Your task to perform on an android device: toggle location history Image 0: 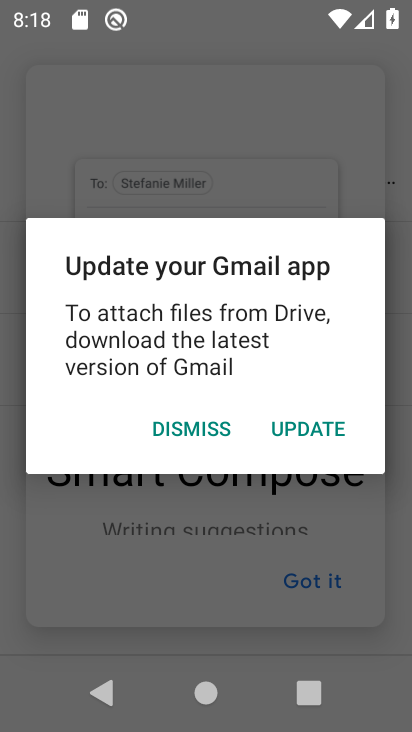
Step 0: press home button
Your task to perform on an android device: toggle location history Image 1: 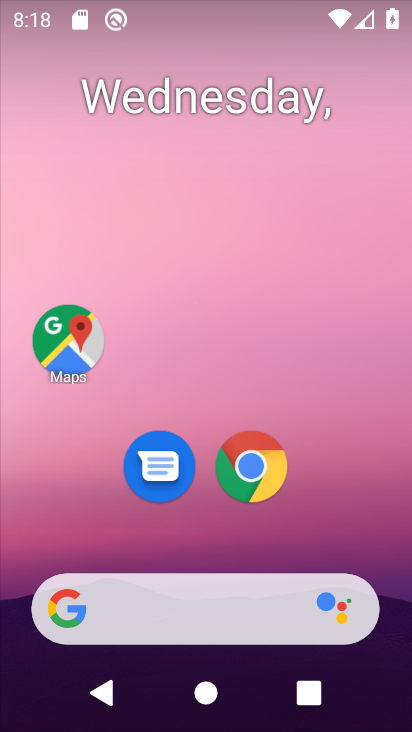
Step 1: drag from (231, 722) to (192, 188)
Your task to perform on an android device: toggle location history Image 2: 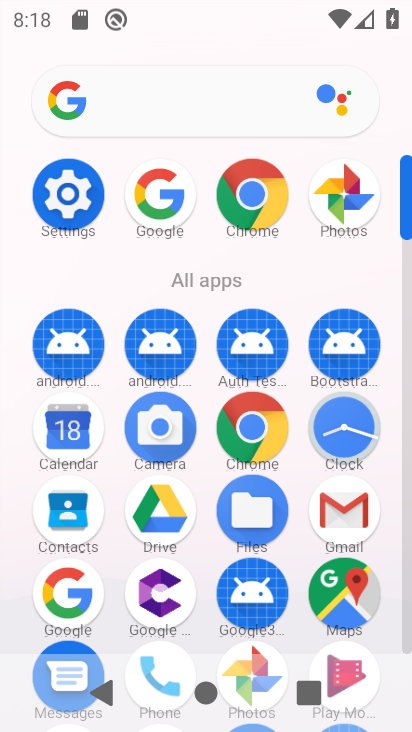
Step 2: click (61, 187)
Your task to perform on an android device: toggle location history Image 3: 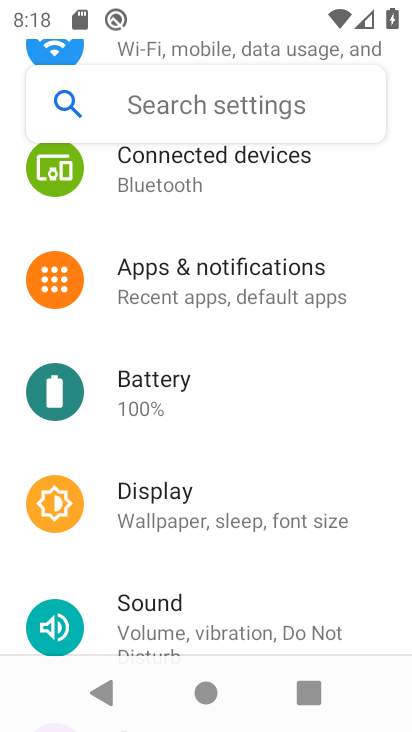
Step 3: drag from (170, 621) to (176, 221)
Your task to perform on an android device: toggle location history Image 4: 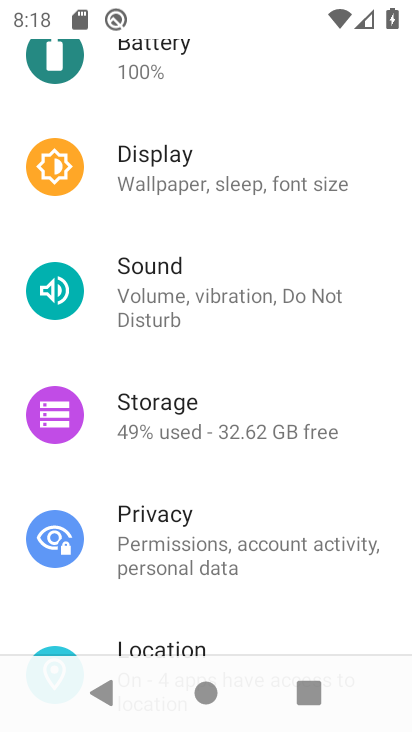
Step 4: drag from (172, 624) to (174, 278)
Your task to perform on an android device: toggle location history Image 5: 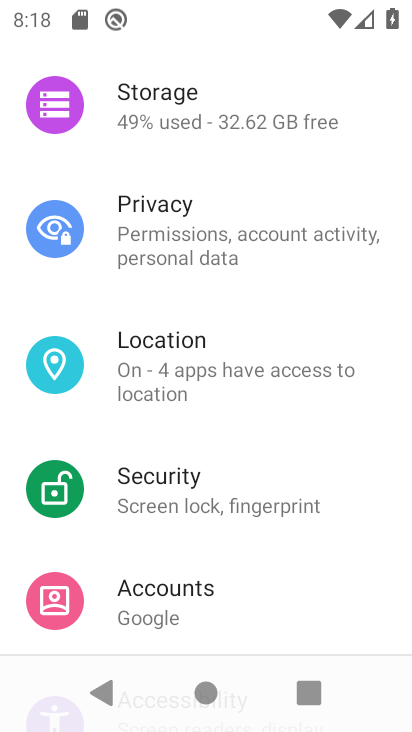
Step 5: click (169, 360)
Your task to perform on an android device: toggle location history Image 6: 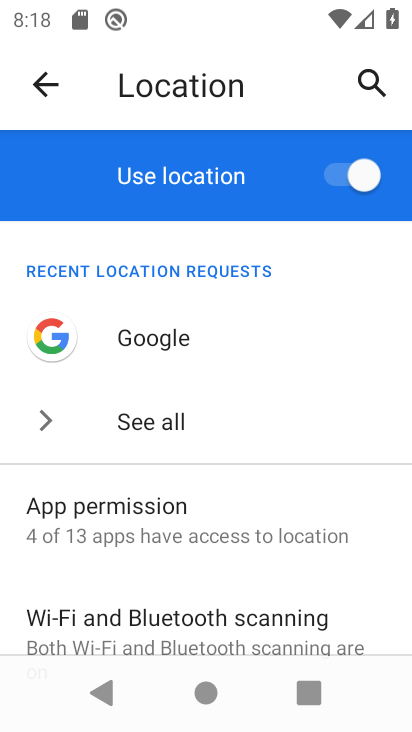
Step 6: drag from (141, 595) to (148, 257)
Your task to perform on an android device: toggle location history Image 7: 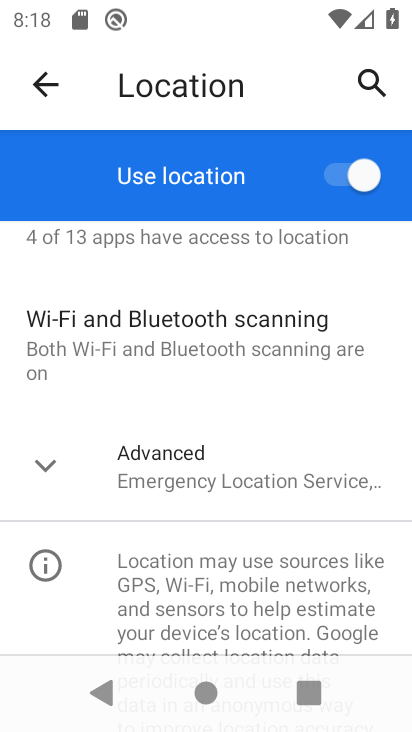
Step 7: click (163, 460)
Your task to perform on an android device: toggle location history Image 8: 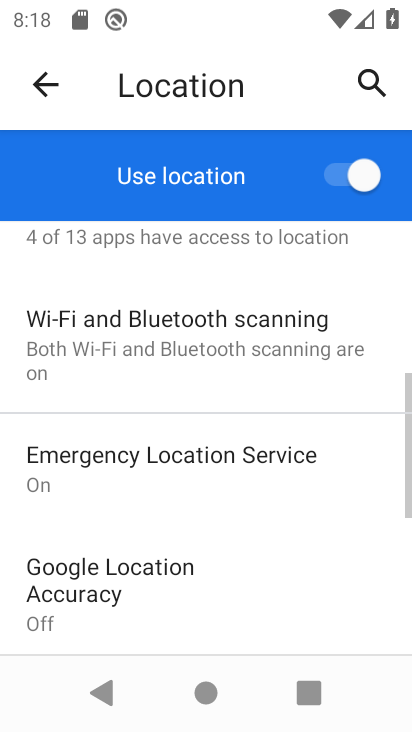
Step 8: drag from (169, 628) to (171, 334)
Your task to perform on an android device: toggle location history Image 9: 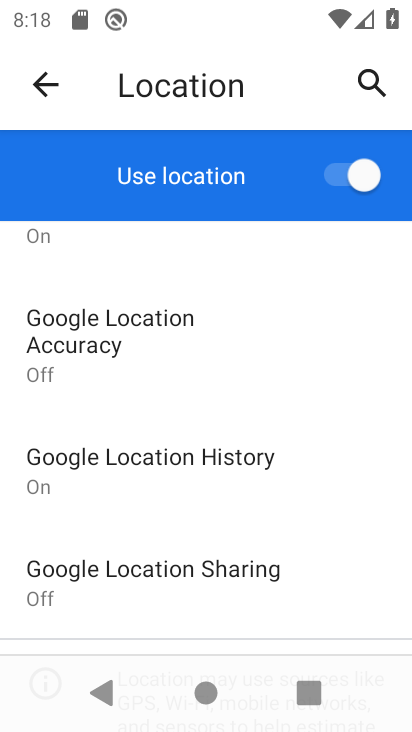
Step 9: click (194, 458)
Your task to perform on an android device: toggle location history Image 10: 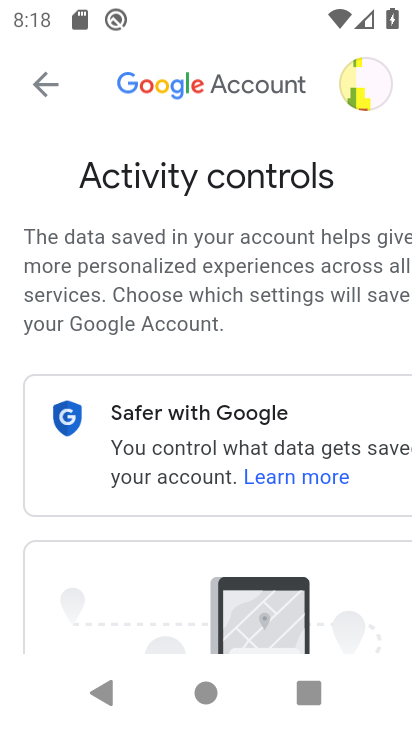
Step 10: drag from (180, 607) to (168, 178)
Your task to perform on an android device: toggle location history Image 11: 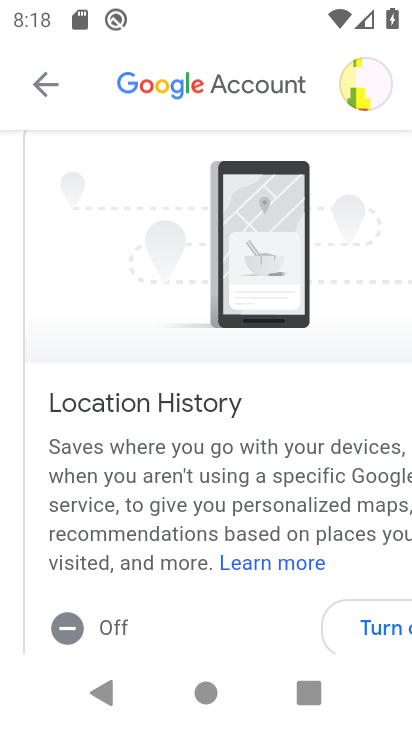
Step 11: drag from (221, 601) to (222, 324)
Your task to perform on an android device: toggle location history Image 12: 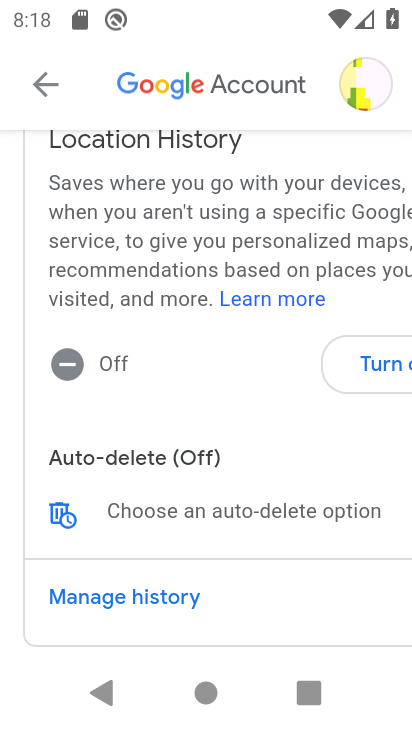
Step 12: click (382, 371)
Your task to perform on an android device: toggle location history Image 13: 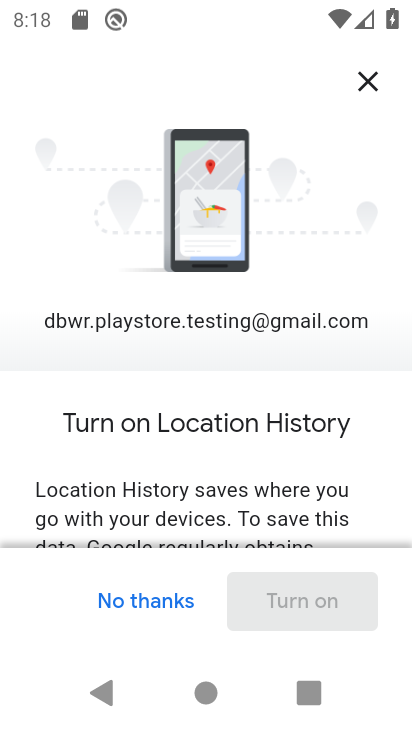
Step 13: drag from (210, 523) to (215, 204)
Your task to perform on an android device: toggle location history Image 14: 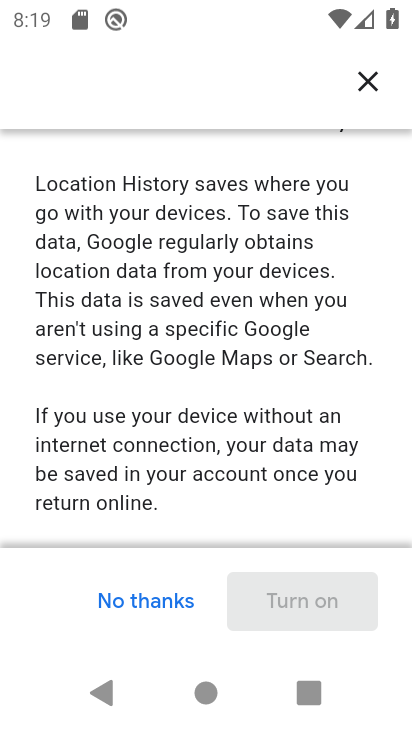
Step 14: drag from (191, 509) to (176, 200)
Your task to perform on an android device: toggle location history Image 15: 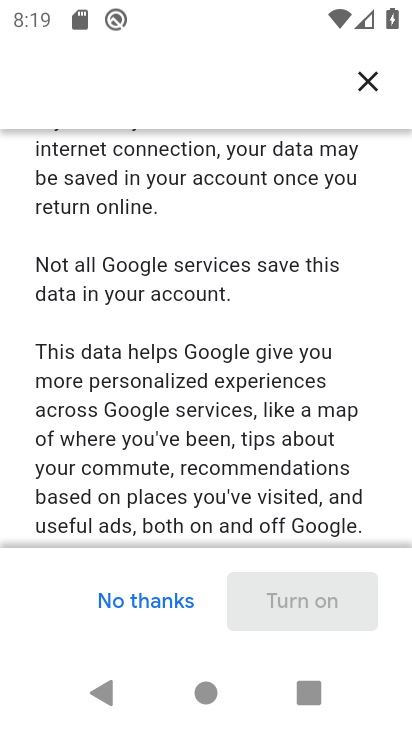
Step 15: drag from (187, 489) to (192, 71)
Your task to perform on an android device: toggle location history Image 16: 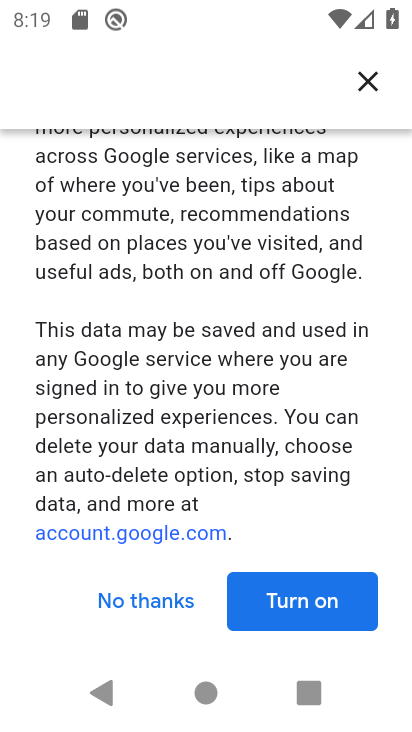
Step 16: click (291, 605)
Your task to perform on an android device: toggle location history Image 17: 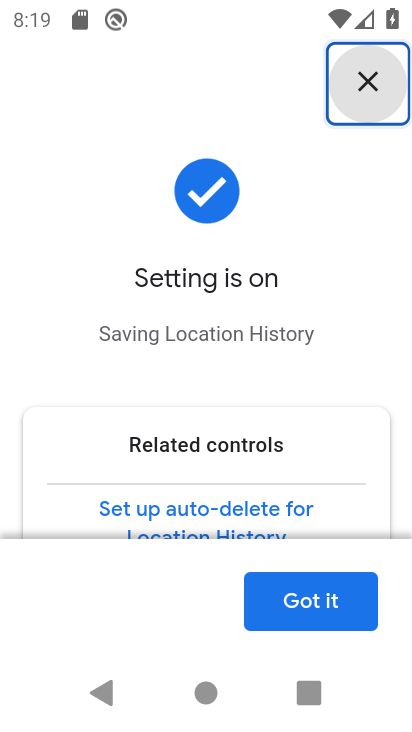
Step 17: click (310, 600)
Your task to perform on an android device: toggle location history Image 18: 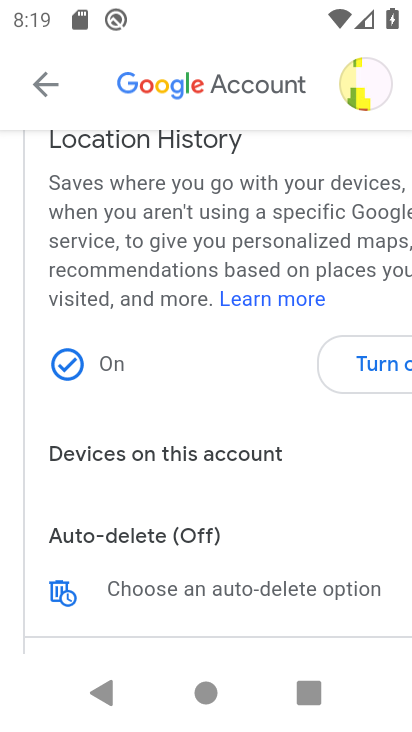
Step 18: task complete